Your task to perform on an android device: Open internet settings Image 0: 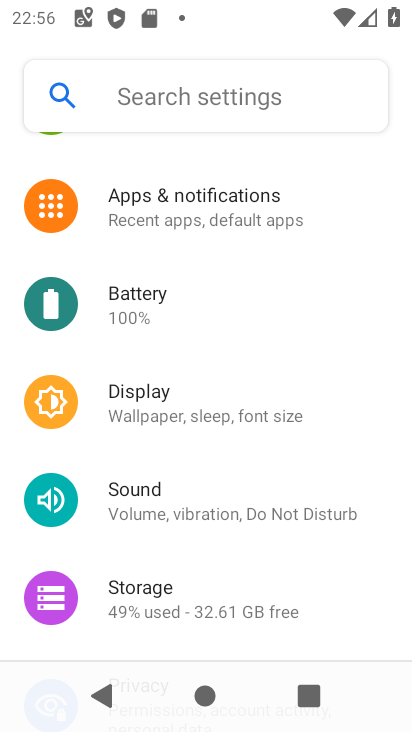
Step 0: drag from (187, 164) to (190, 435)
Your task to perform on an android device: Open internet settings Image 1: 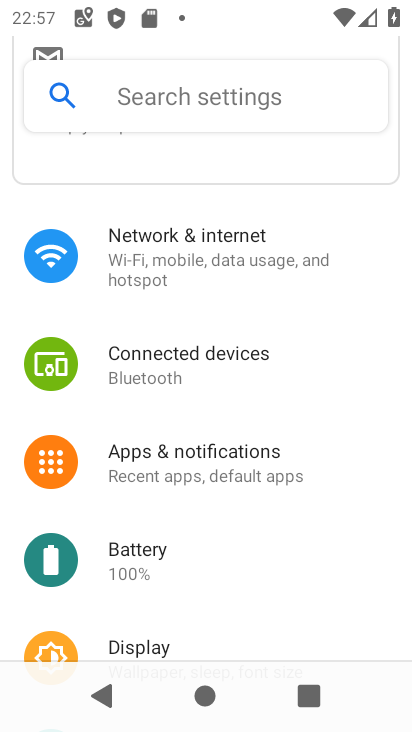
Step 1: click (163, 261)
Your task to perform on an android device: Open internet settings Image 2: 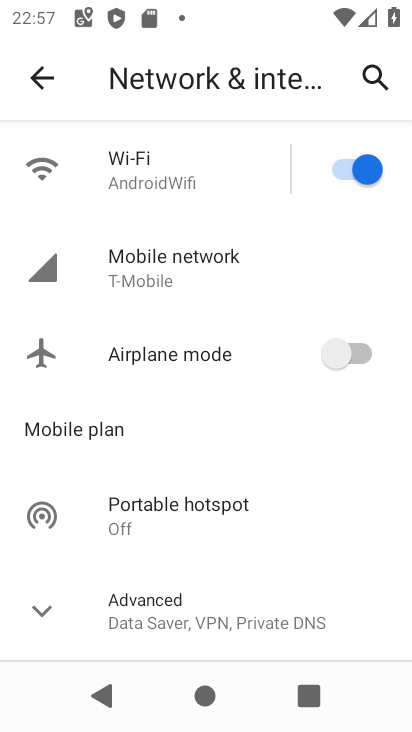
Step 2: task complete